Your task to perform on an android device: turn off notifications settings in the gmail app Image 0: 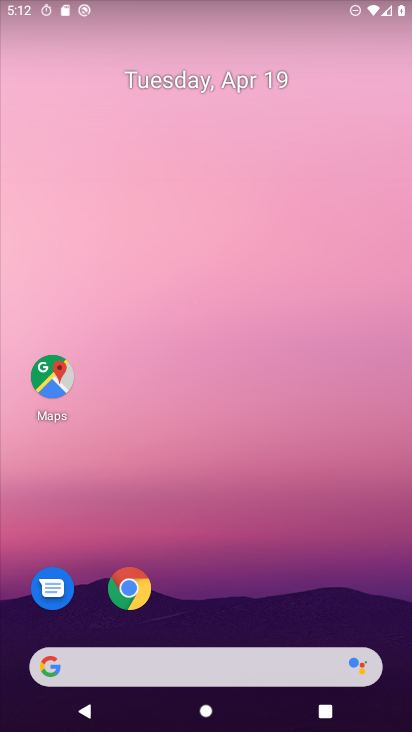
Step 0: drag from (222, 603) to (214, 137)
Your task to perform on an android device: turn off notifications settings in the gmail app Image 1: 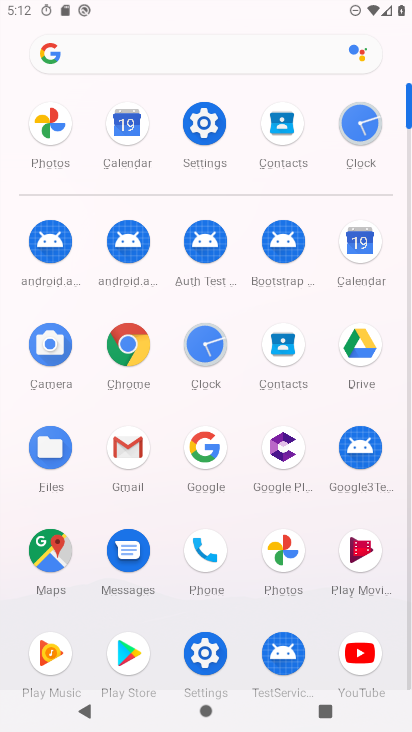
Step 1: click (127, 456)
Your task to perform on an android device: turn off notifications settings in the gmail app Image 2: 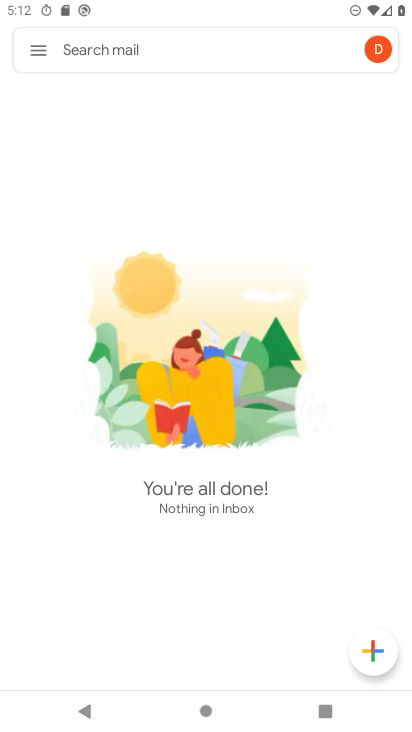
Step 2: click (37, 46)
Your task to perform on an android device: turn off notifications settings in the gmail app Image 3: 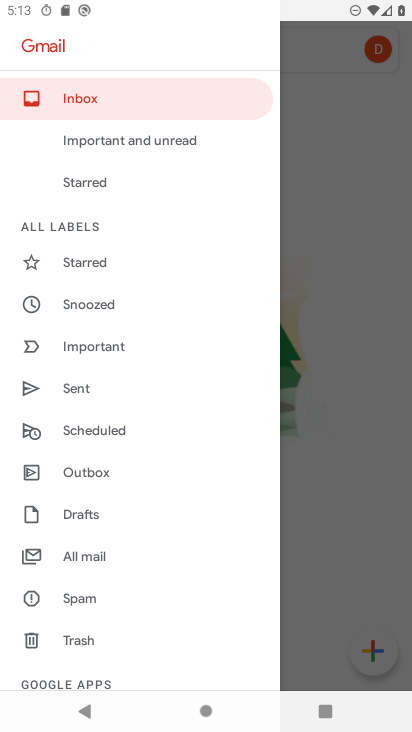
Step 3: drag from (140, 613) to (135, 360)
Your task to perform on an android device: turn off notifications settings in the gmail app Image 4: 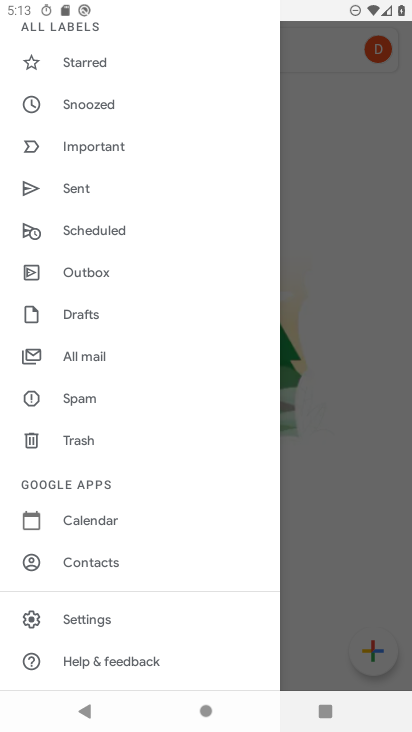
Step 4: click (109, 619)
Your task to perform on an android device: turn off notifications settings in the gmail app Image 5: 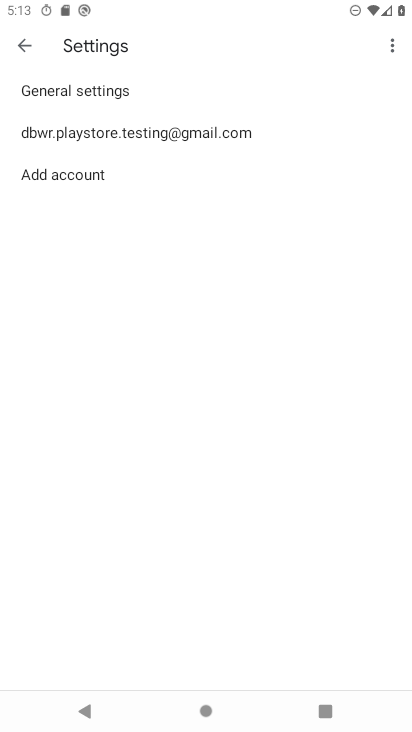
Step 5: click (78, 131)
Your task to perform on an android device: turn off notifications settings in the gmail app Image 6: 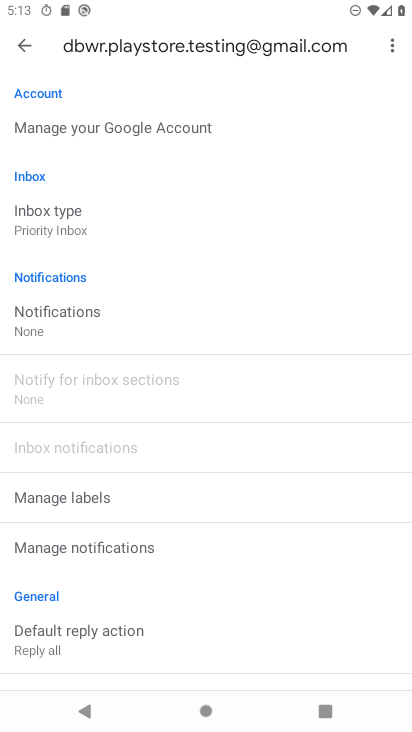
Step 6: click (96, 554)
Your task to perform on an android device: turn off notifications settings in the gmail app Image 7: 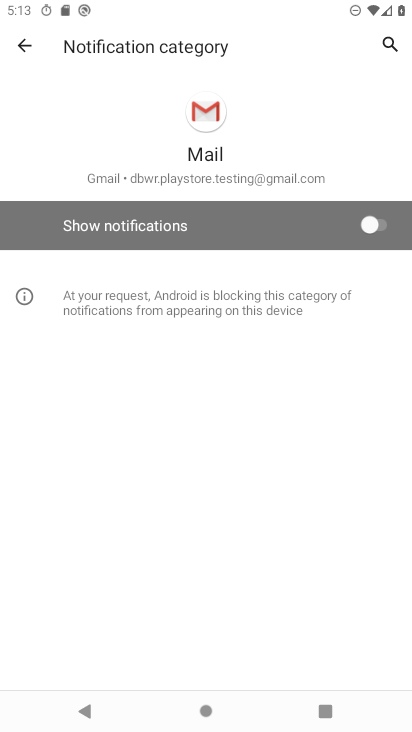
Step 7: task complete